Your task to perform on an android device: Go to location settings Image 0: 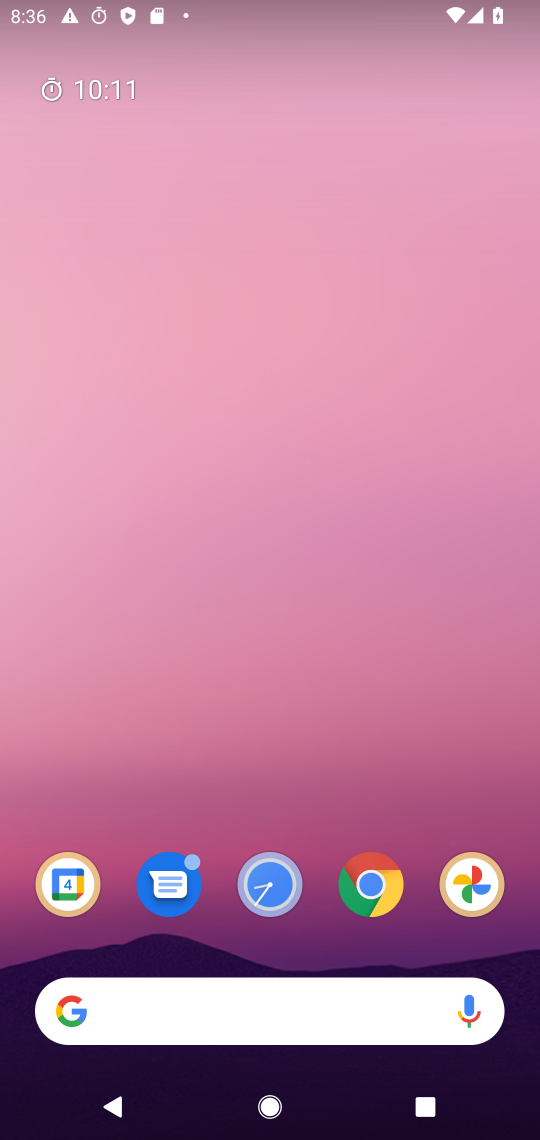
Step 0: drag from (265, 916) to (322, 211)
Your task to perform on an android device: Go to location settings Image 1: 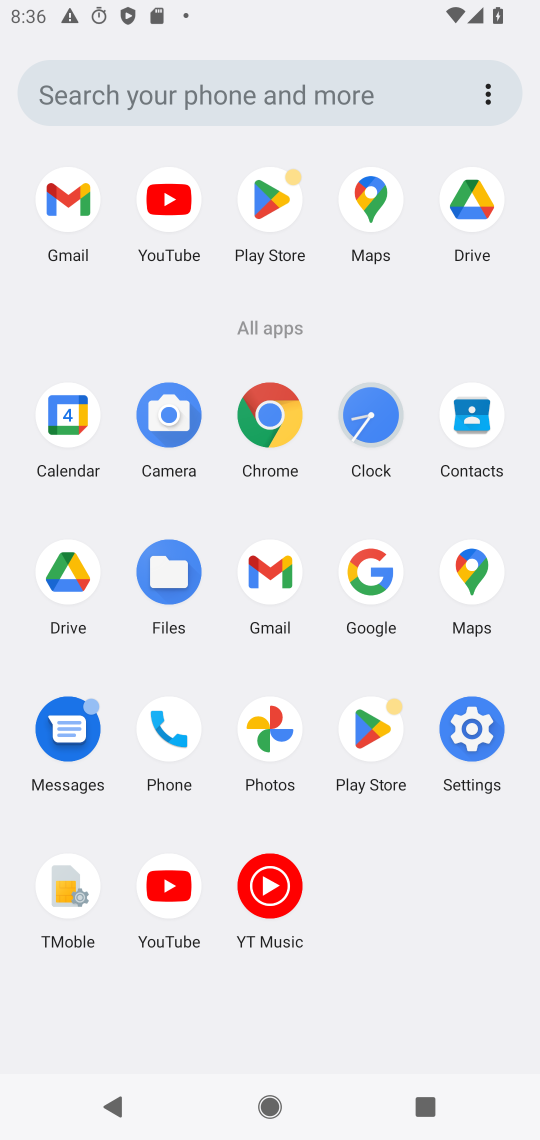
Step 1: click (467, 727)
Your task to perform on an android device: Go to location settings Image 2: 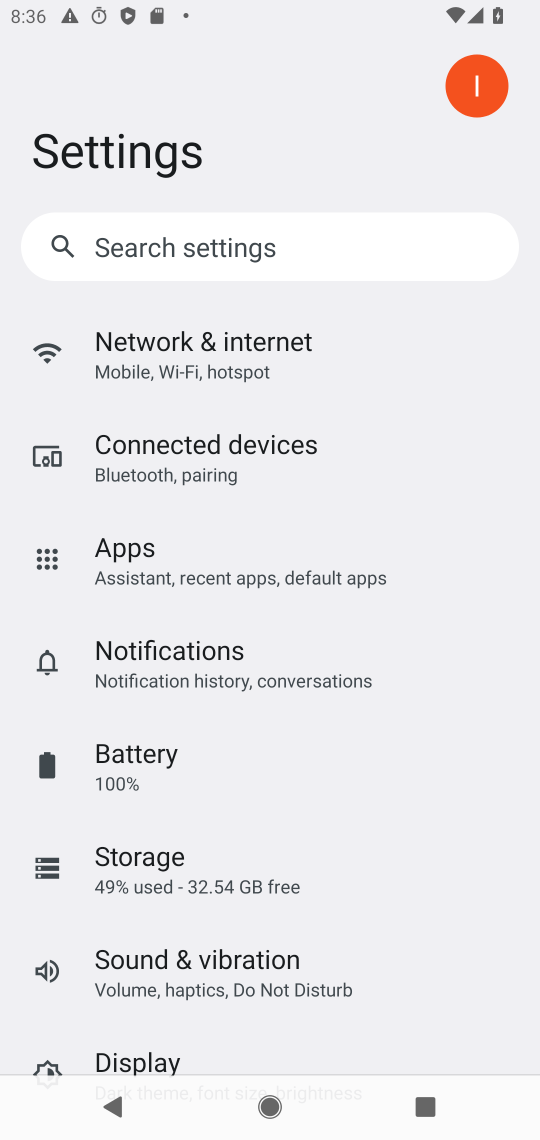
Step 2: click (486, 20)
Your task to perform on an android device: Go to location settings Image 3: 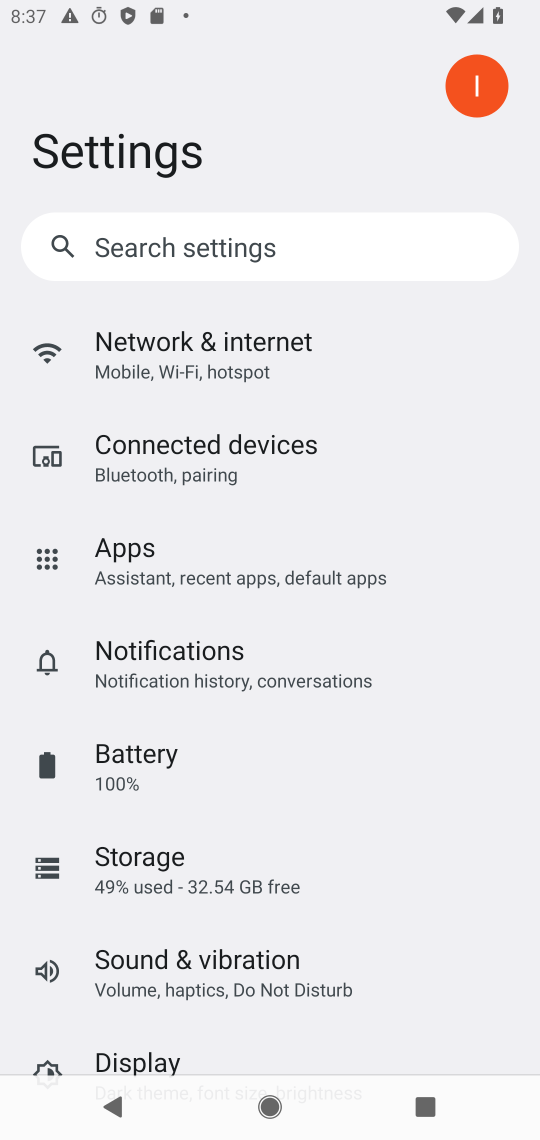
Step 3: drag from (429, 416) to (399, 0)
Your task to perform on an android device: Go to location settings Image 4: 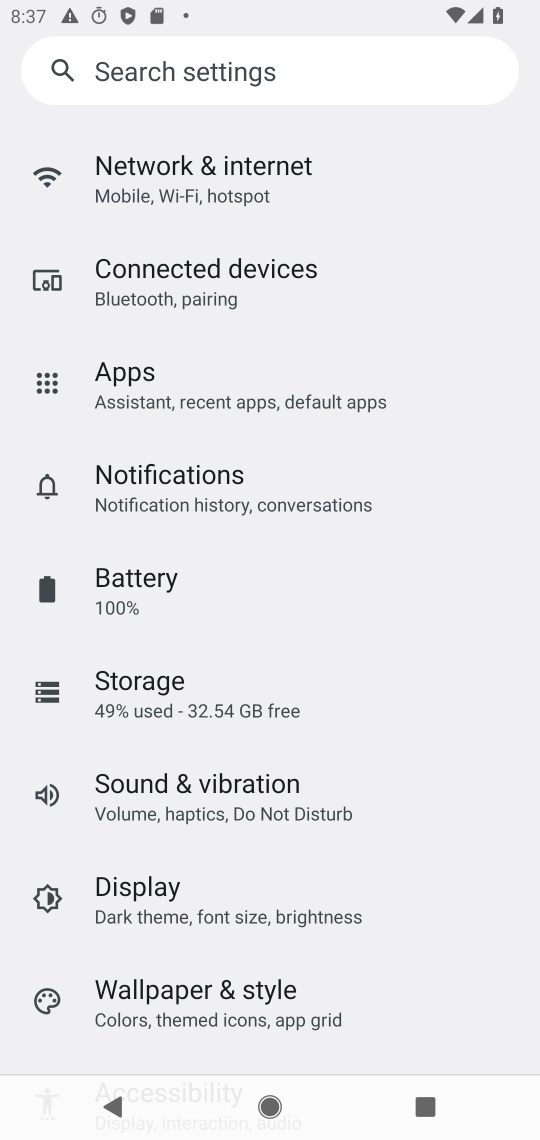
Step 4: drag from (429, 450) to (414, 865)
Your task to perform on an android device: Go to location settings Image 5: 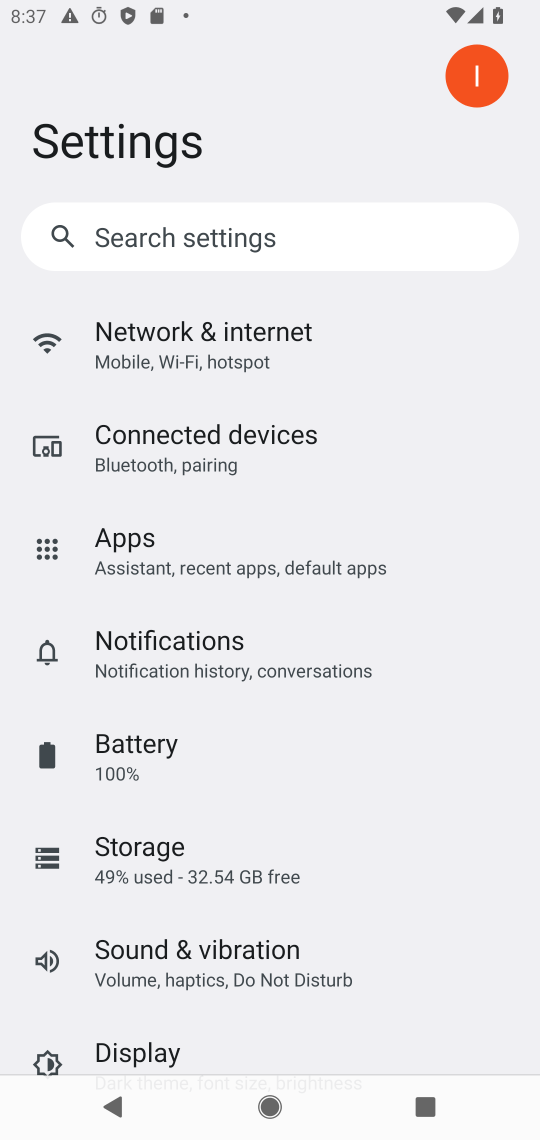
Step 5: drag from (465, 865) to (459, 389)
Your task to perform on an android device: Go to location settings Image 6: 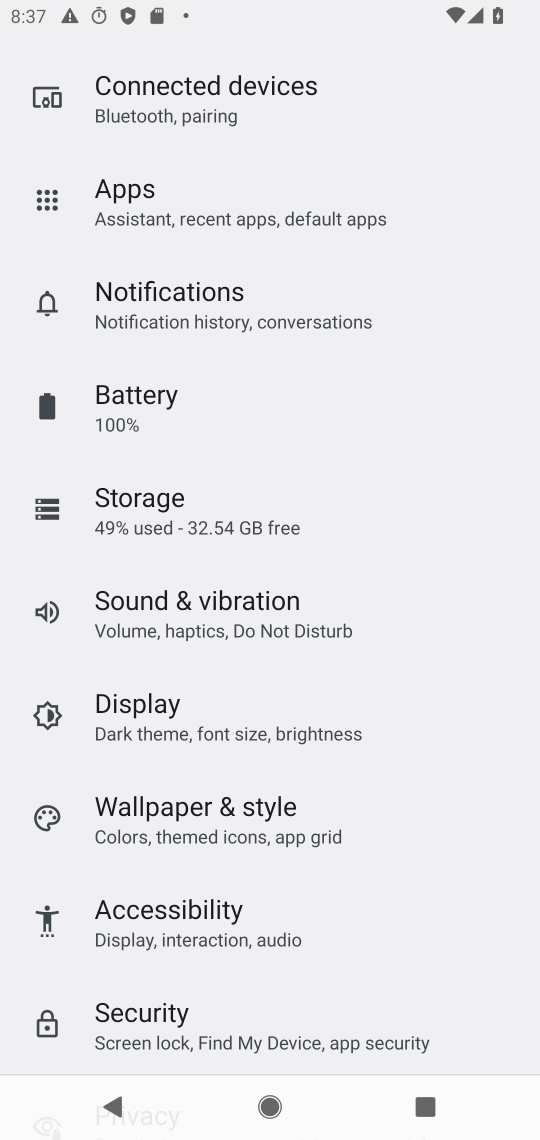
Step 6: drag from (368, 955) to (374, 220)
Your task to perform on an android device: Go to location settings Image 7: 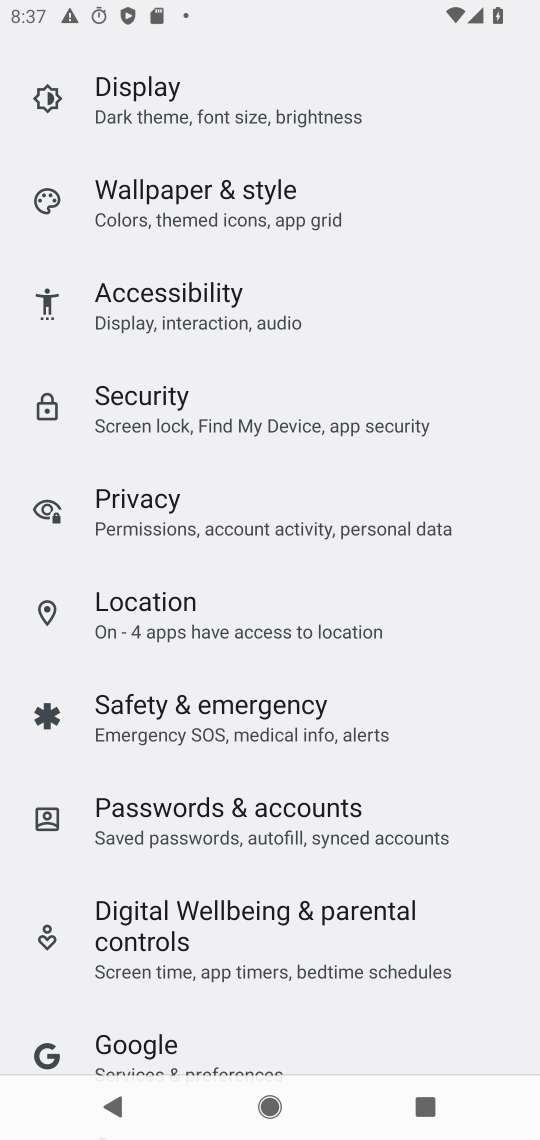
Step 7: click (151, 619)
Your task to perform on an android device: Go to location settings Image 8: 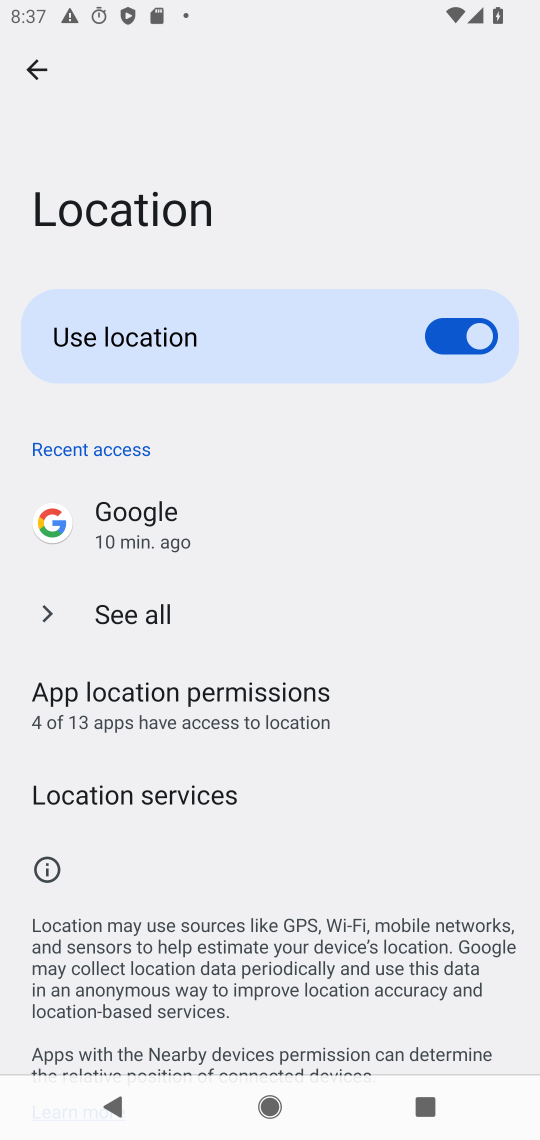
Step 8: task complete